Your task to perform on an android device: View the shopping cart on bestbuy.com. Search for panasonic triple a on bestbuy.com, select the first entry, add it to the cart, then select checkout. Image 0: 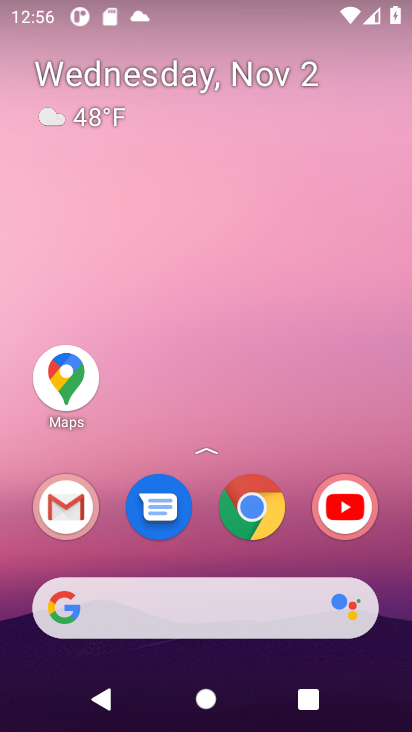
Step 0: drag from (231, 418) to (263, 77)
Your task to perform on an android device: View the shopping cart on bestbuy.com. Search for panasonic triple a on bestbuy.com, select the first entry, add it to the cart, then select checkout. Image 1: 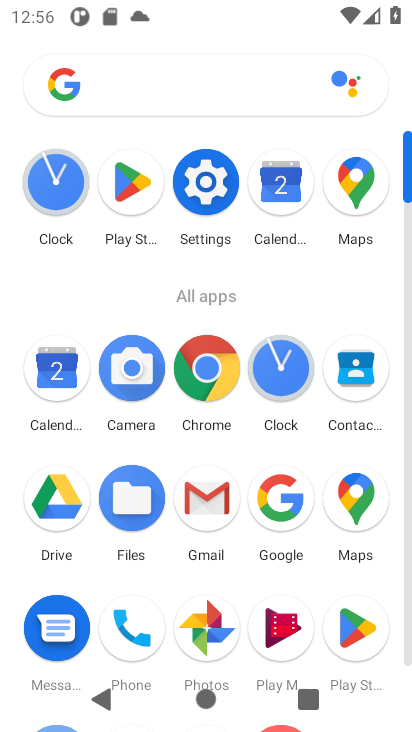
Step 1: press home button
Your task to perform on an android device: View the shopping cart on bestbuy.com. Search for panasonic triple a on bestbuy.com, select the first entry, add it to the cart, then select checkout. Image 2: 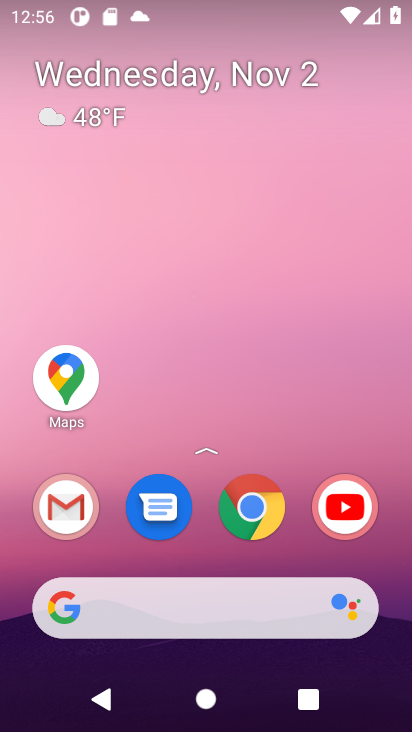
Step 2: click (150, 622)
Your task to perform on an android device: View the shopping cart on bestbuy.com. Search for panasonic triple a on bestbuy.com, select the first entry, add it to the cart, then select checkout. Image 3: 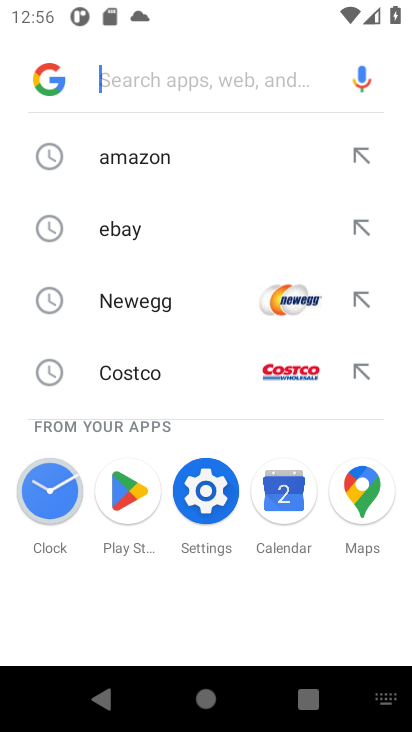
Step 3: type "bestbuy.com"
Your task to perform on an android device: View the shopping cart on bestbuy.com. Search for panasonic triple a on bestbuy.com, select the first entry, add it to the cart, then select checkout. Image 4: 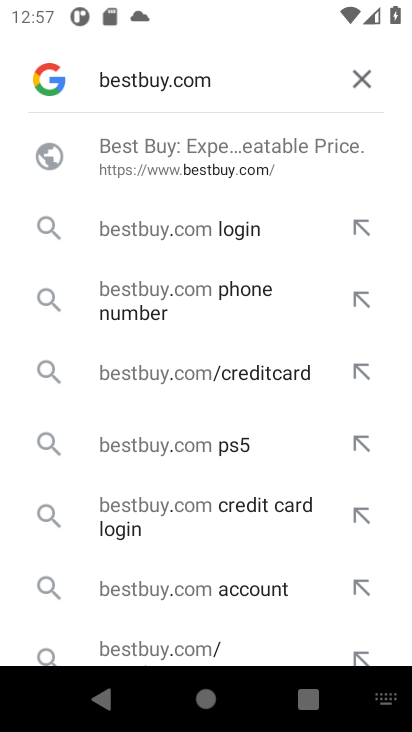
Step 4: type ""
Your task to perform on an android device: View the shopping cart on bestbuy.com. Search for panasonic triple a on bestbuy.com, select the first entry, add it to the cart, then select checkout. Image 5: 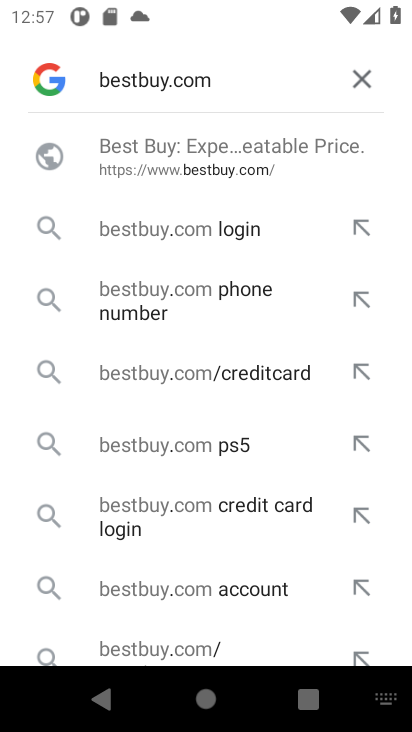
Step 5: click (221, 148)
Your task to perform on an android device: View the shopping cart on bestbuy.com. Search for panasonic triple a on bestbuy.com, select the first entry, add it to the cart, then select checkout. Image 6: 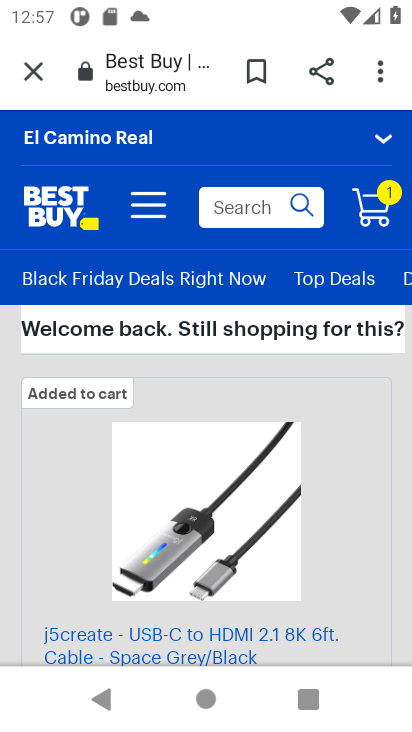
Step 6: click (284, 208)
Your task to perform on an android device: View the shopping cart on bestbuy.com. Search for panasonic triple a on bestbuy.com, select the first entry, add it to the cart, then select checkout. Image 7: 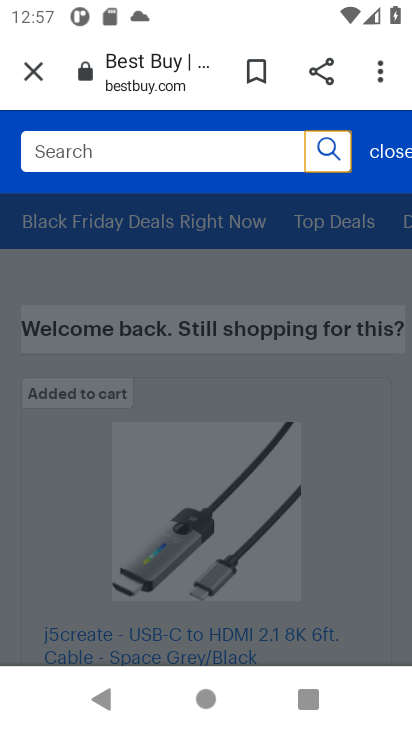
Step 7: click (126, 145)
Your task to perform on an android device: View the shopping cart on bestbuy.com. Search for panasonic triple a on bestbuy.com, select the first entry, add it to the cart, then select checkout. Image 8: 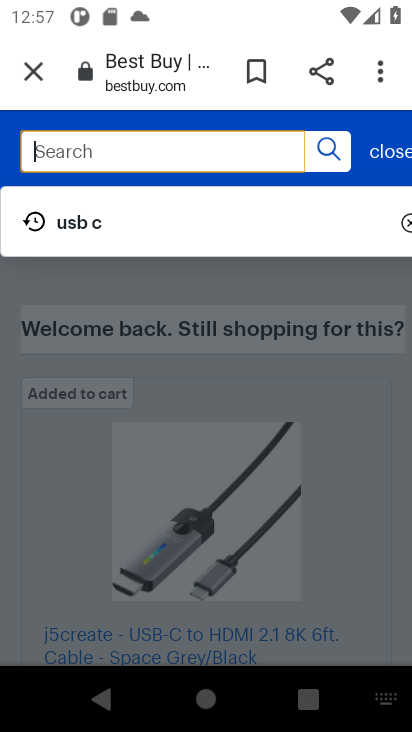
Step 8: type "panasonic triple a"
Your task to perform on an android device: View the shopping cart on bestbuy.com. Search for panasonic triple a on bestbuy.com, select the first entry, add it to the cart, then select checkout. Image 9: 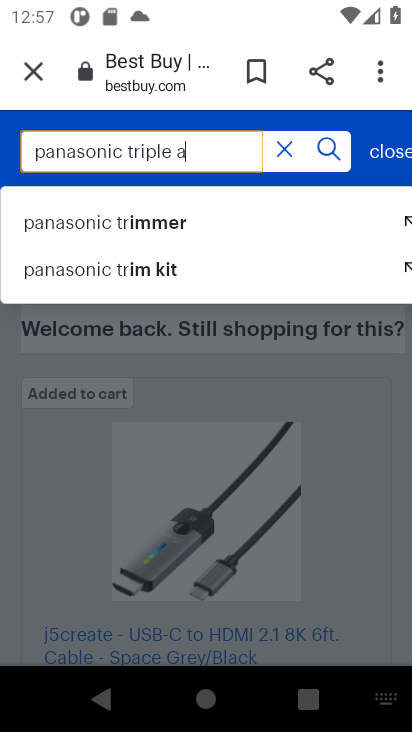
Step 9: type ""
Your task to perform on an android device: View the shopping cart on bestbuy.com. Search for panasonic triple a on bestbuy.com, select the first entry, add it to the cart, then select checkout. Image 10: 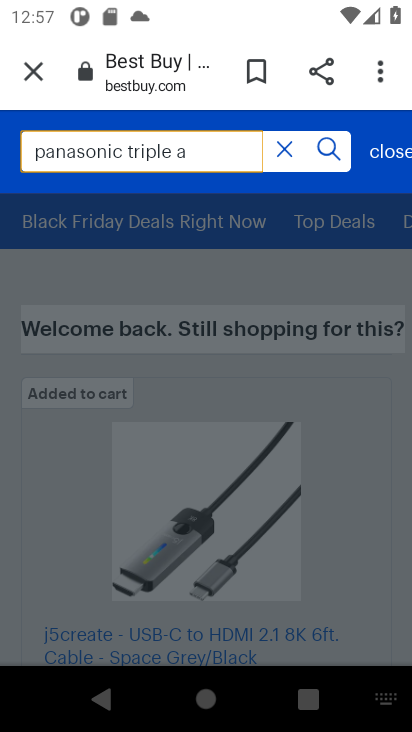
Step 10: click (317, 152)
Your task to perform on an android device: View the shopping cart on bestbuy.com. Search for panasonic triple a on bestbuy.com, select the first entry, add it to the cart, then select checkout. Image 11: 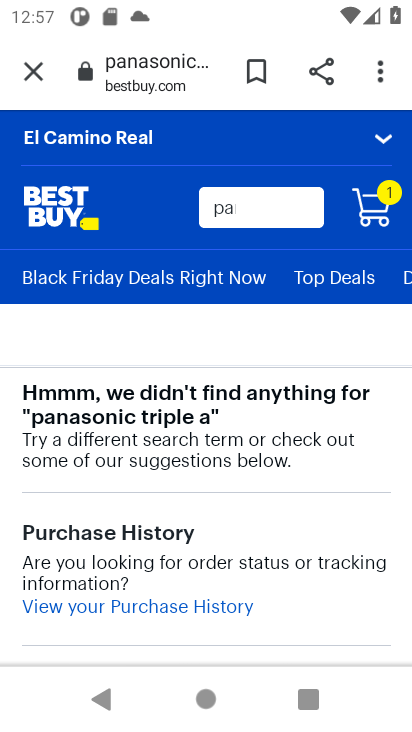
Step 11: task complete